Your task to perform on an android device: turn off sleep mode Image 0: 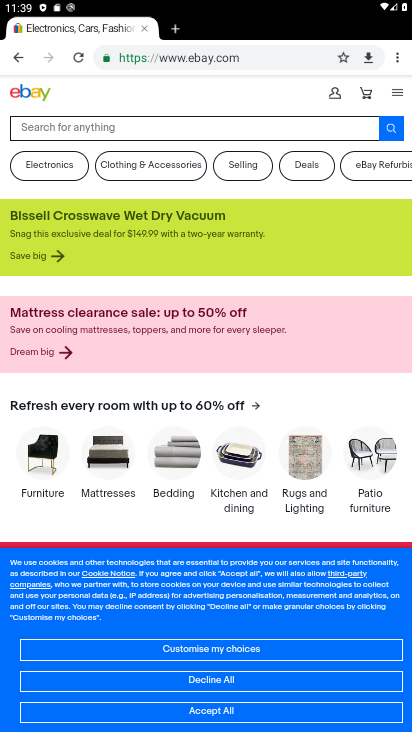
Step 0: task complete